Your task to perform on an android device: move an email to a new category in the gmail app Image 0: 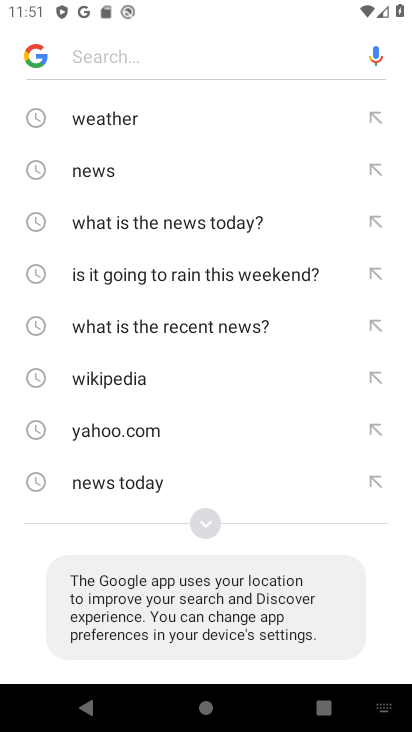
Step 0: press home button
Your task to perform on an android device: move an email to a new category in the gmail app Image 1: 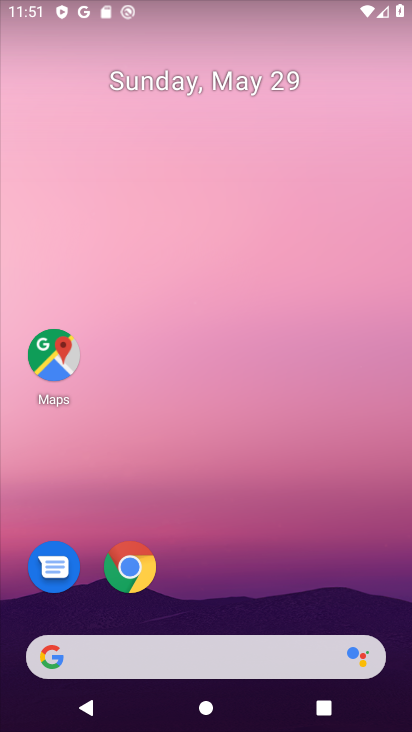
Step 1: drag from (207, 633) to (221, 103)
Your task to perform on an android device: move an email to a new category in the gmail app Image 2: 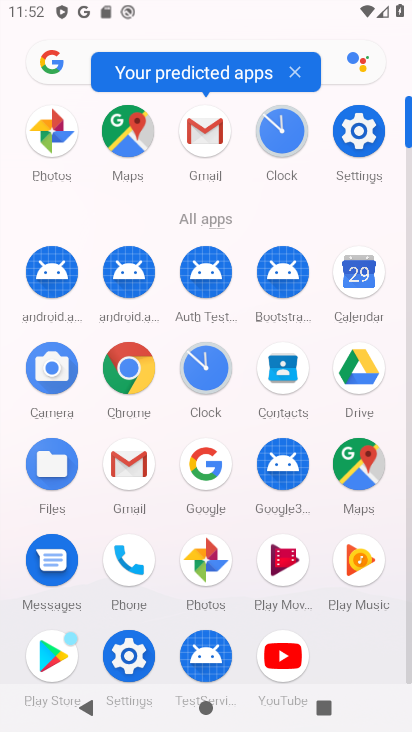
Step 2: click (126, 462)
Your task to perform on an android device: move an email to a new category in the gmail app Image 3: 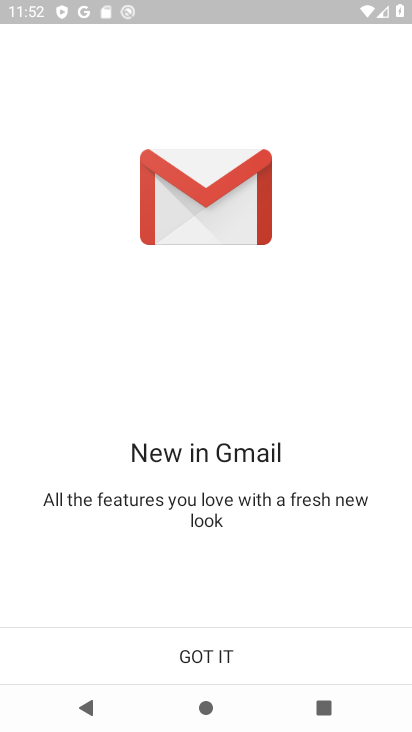
Step 3: click (230, 675)
Your task to perform on an android device: move an email to a new category in the gmail app Image 4: 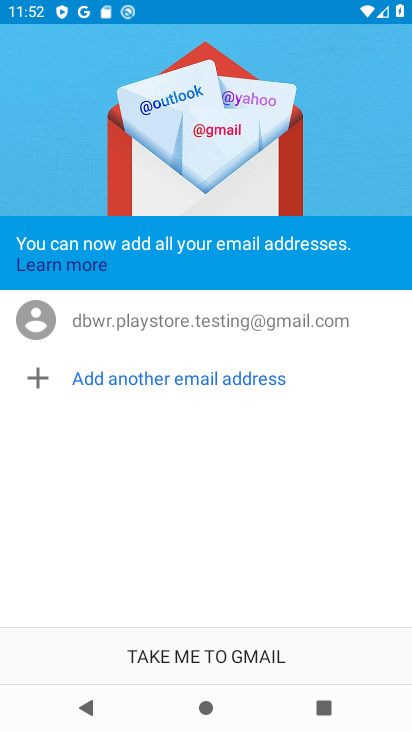
Step 4: click (231, 674)
Your task to perform on an android device: move an email to a new category in the gmail app Image 5: 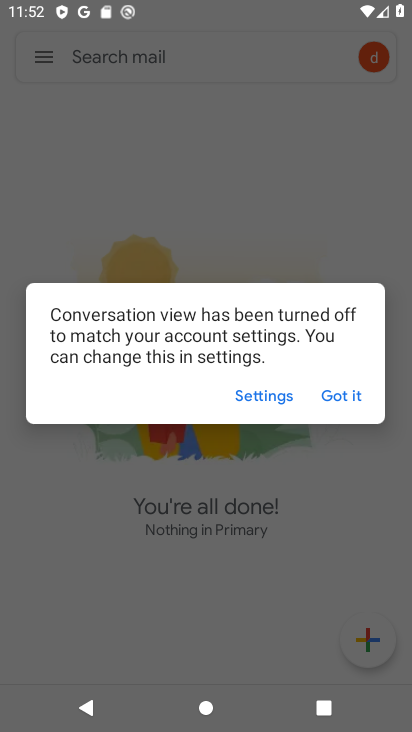
Step 5: click (355, 412)
Your task to perform on an android device: move an email to a new category in the gmail app Image 6: 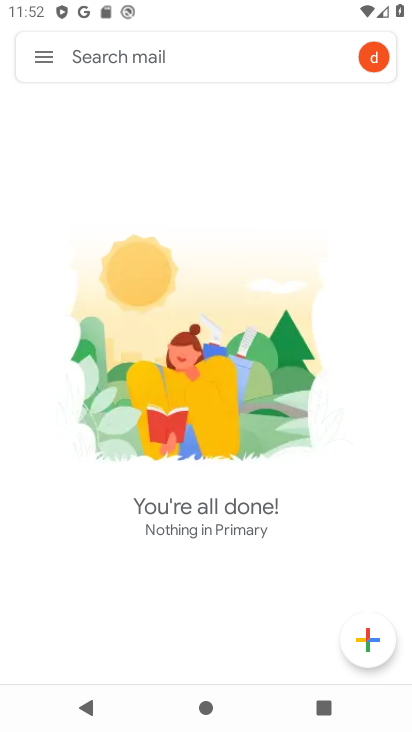
Step 6: click (56, 52)
Your task to perform on an android device: move an email to a new category in the gmail app Image 7: 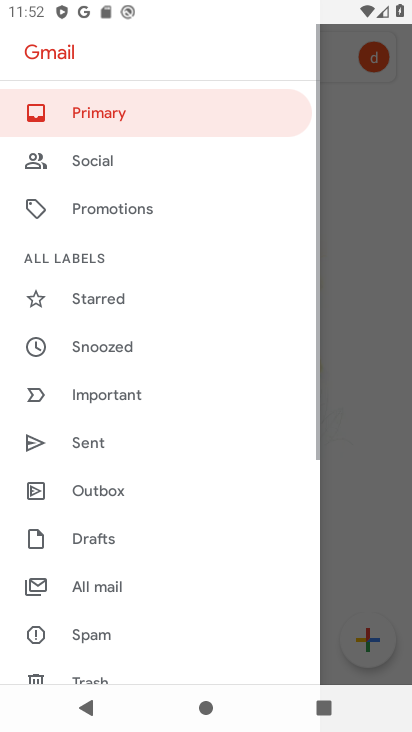
Step 7: drag from (109, 658) to (120, 536)
Your task to perform on an android device: move an email to a new category in the gmail app Image 8: 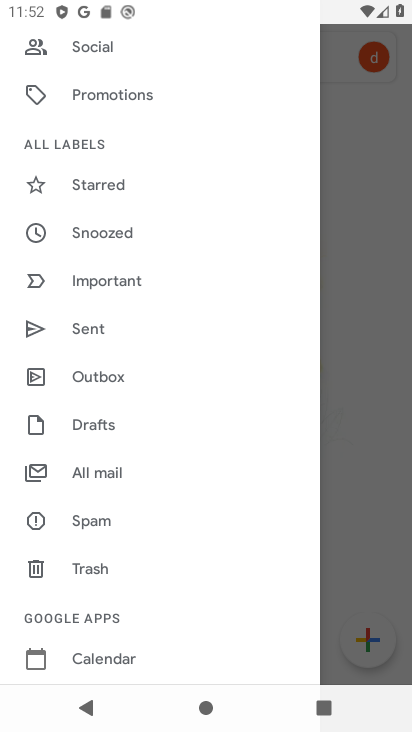
Step 8: click (129, 462)
Your task to perform on an android device: move an email to a new category in the gmail app Image 9: 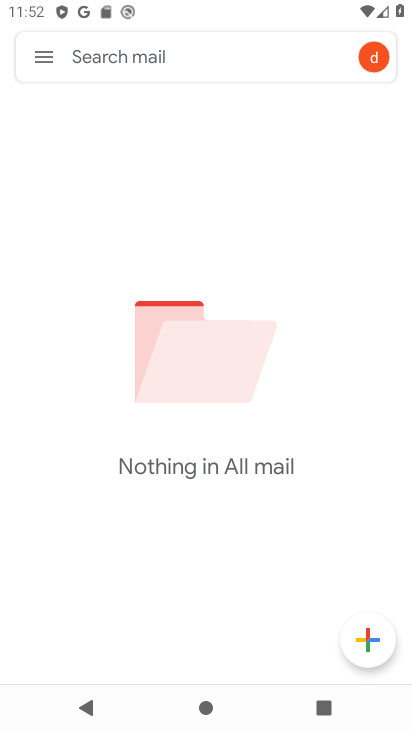
Step 9: task complete